Your task to perform on an android device: toggle javascript in the chrome app Image 0: 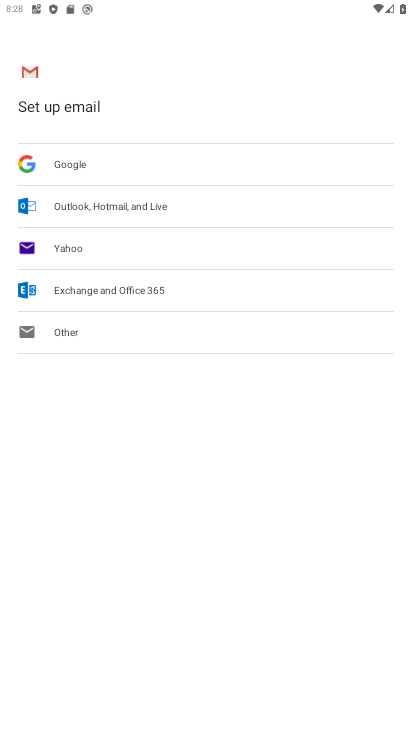
Step 0: press home button
Your task to perform on an android device: toggle javascript in the chrome app Image 1: 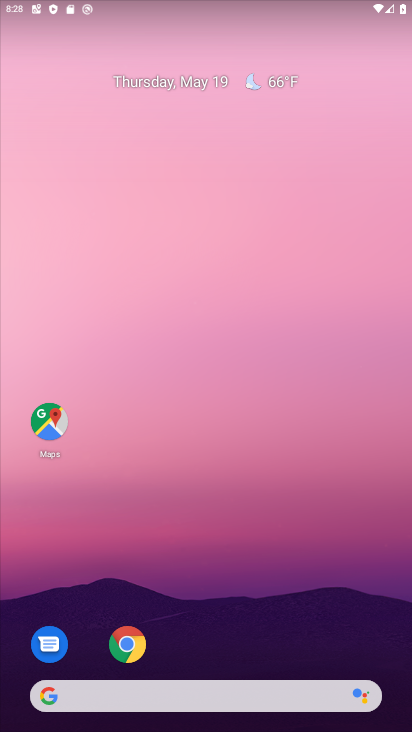
Step 1: drag from (340, 607) to (305, 198)
Your task to perform on an android device: toggle javascript in the chrome app Image 2: 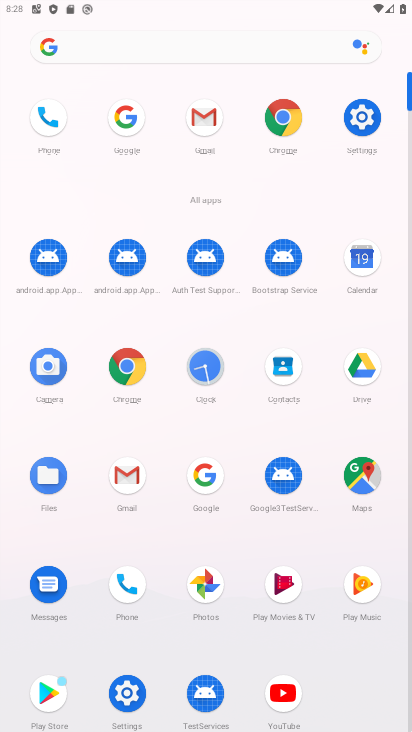
Step 2: click (121, 373)
Your task to perform on an android device: toggle javascript in the chrome app Image 3: 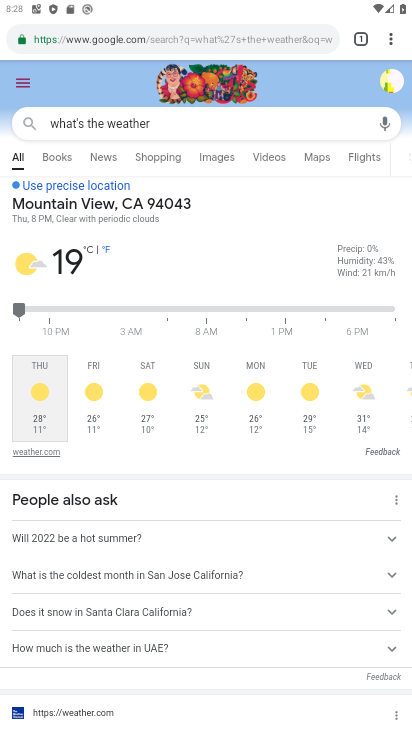
Step 3: drag from (397, 37) to (250, 440)
Your task to perform on an android device: toggle javascript in the chrome app Image 4: 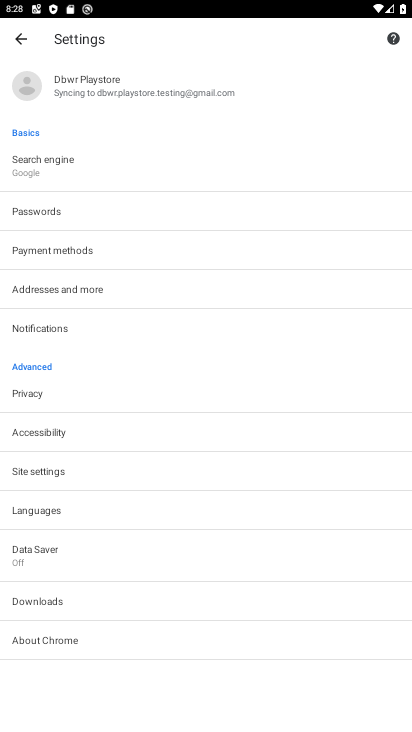
Step 4: click (41, 476)
Your task to perform on an android device: toggle javascript in the chrome app Image 5: 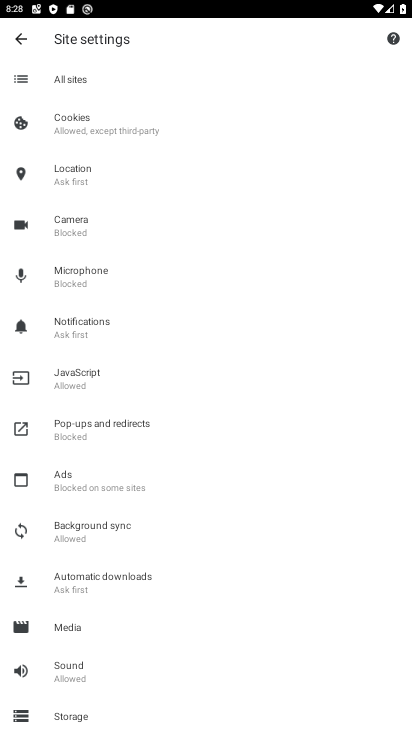
Step 5: click (69, 377)
Your task to perform on an android device: toggle javascript in the chrome app Image 6: 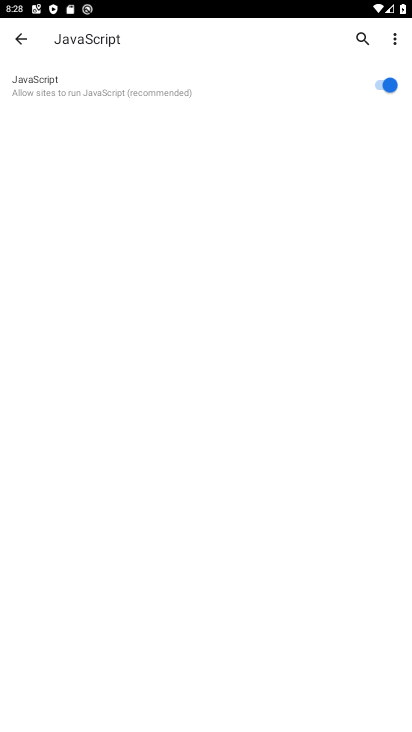
Step 6: click (390, 87)
Your task to perform on an android device: toggle javascript in the chrome app Image 7: 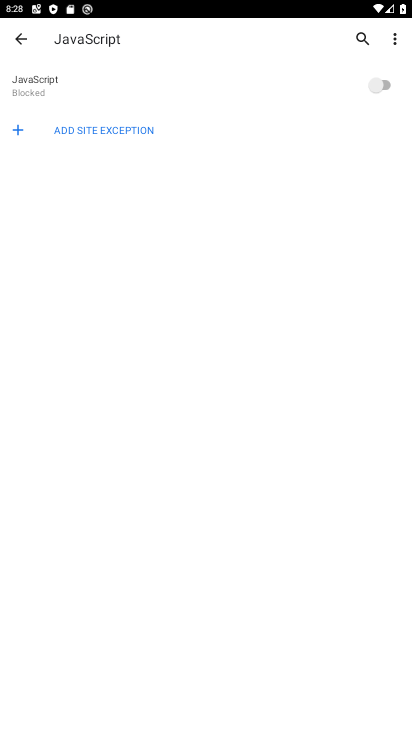
Step 7: task complete